Your task to perform on an android device: toggle location history Image 0: 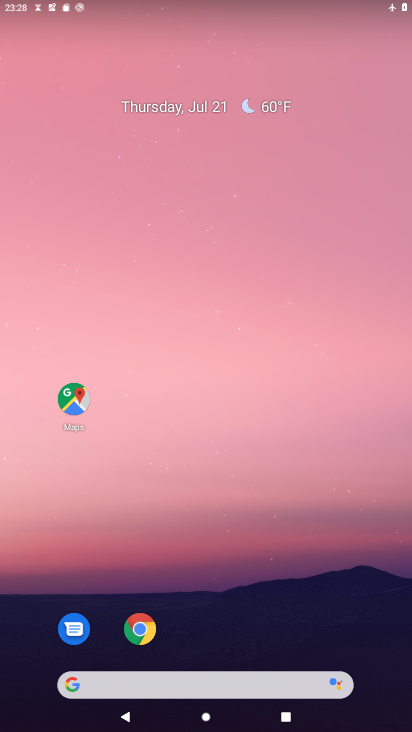
Step 0: drag from (282, 601) to (263, 46)
Your task to perform on an android device: toggle location history Image 1: 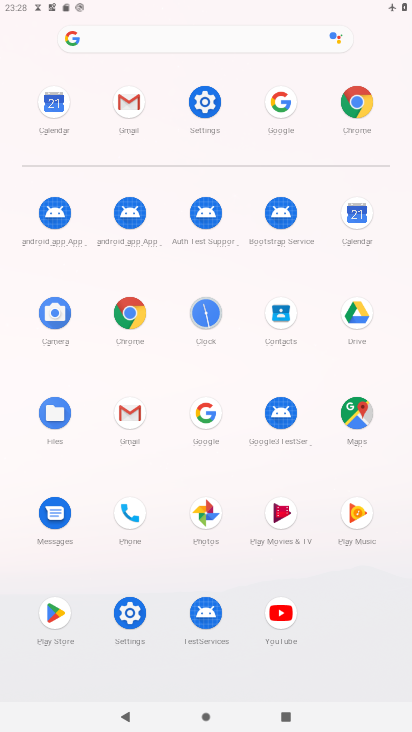
Step 1: click (210, 99)
Your task to perform on an android device: toggle location history Image 2: 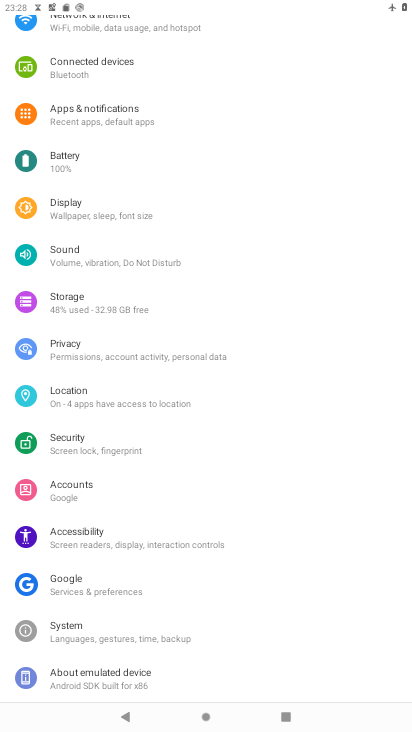
Step 2: click (55, 386)
Your task to perform on an android device: toggle location history Image 3: 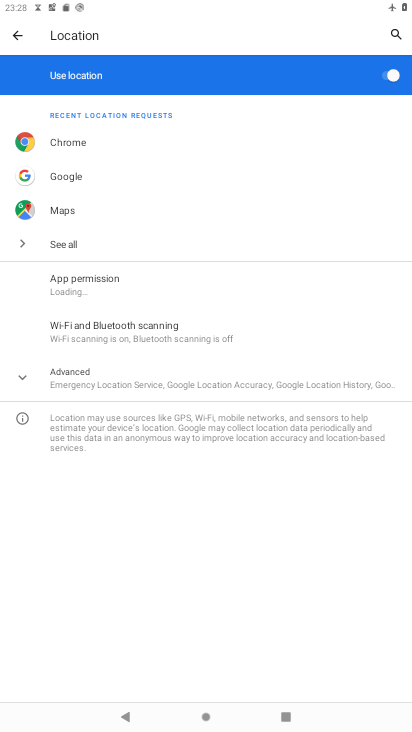
Step 3: click (129, 373)
Your task to perform on an android device: toggle location history Image 4: 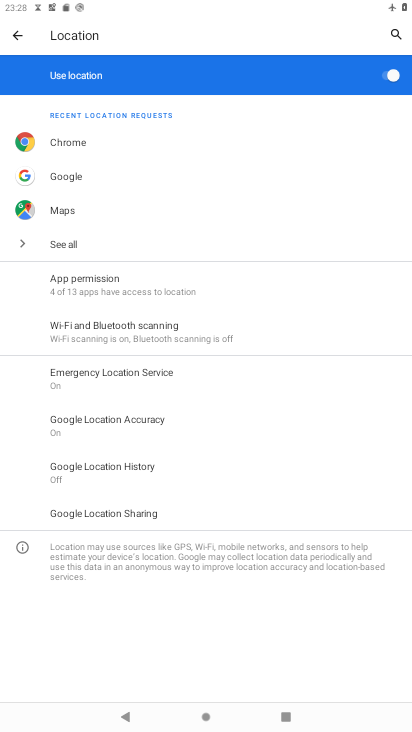
Step 4: click (141, 470)
Your task to perform on an android device: toggle location history Image 5: 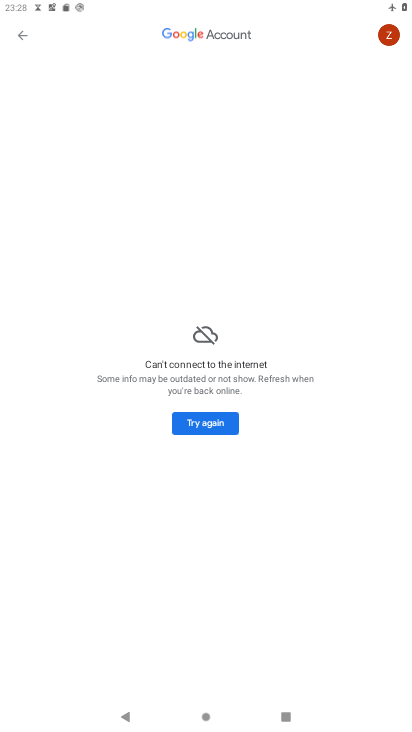
Step 5: click (204, 422)
Your task to perform on an android device: toggle location history Image 6: 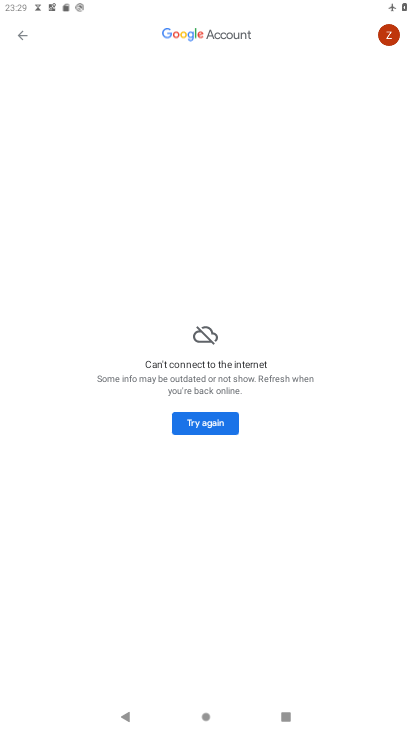
Step 6: task complete